Your task to perform on an android device: Go to privacy settings Image 0: 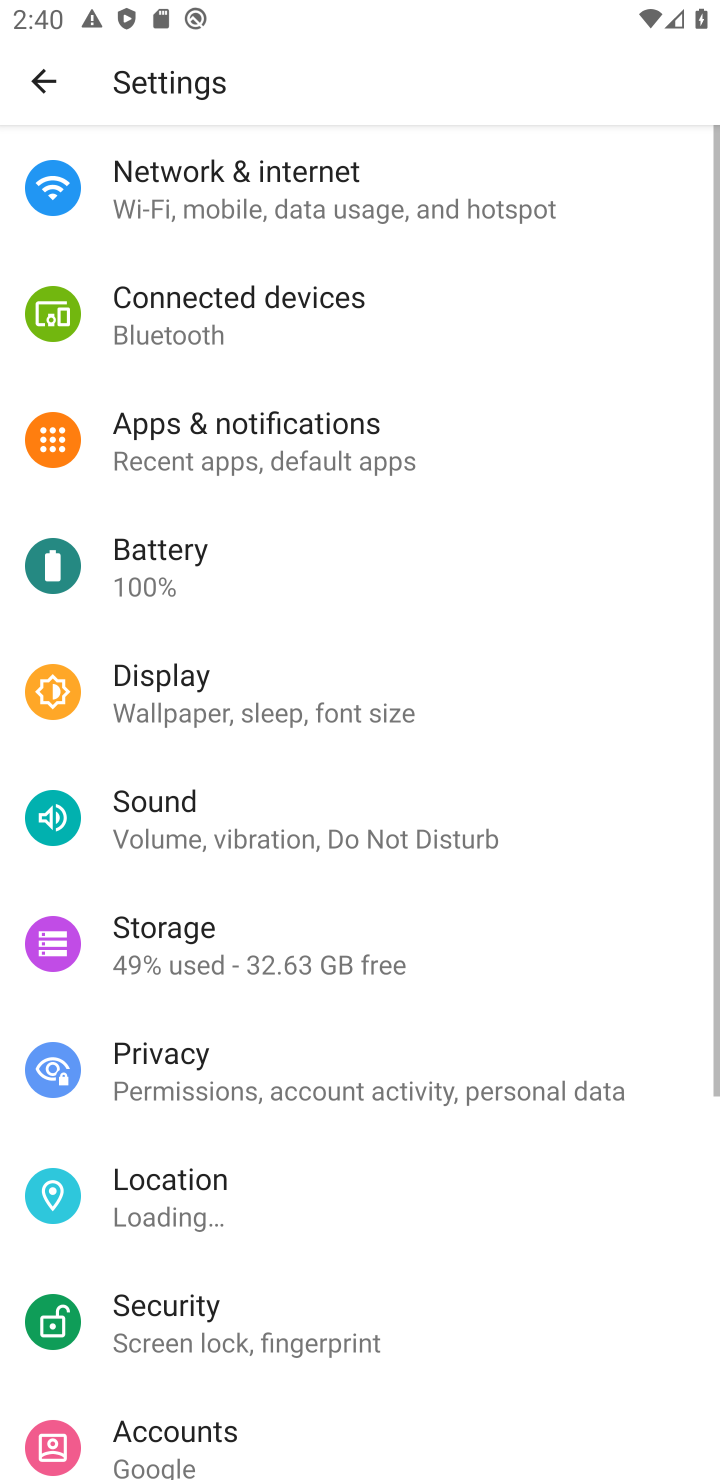
Step 0: click (355, 1066)
Your task to perform on an android device: Go to privacy settings Image 1: 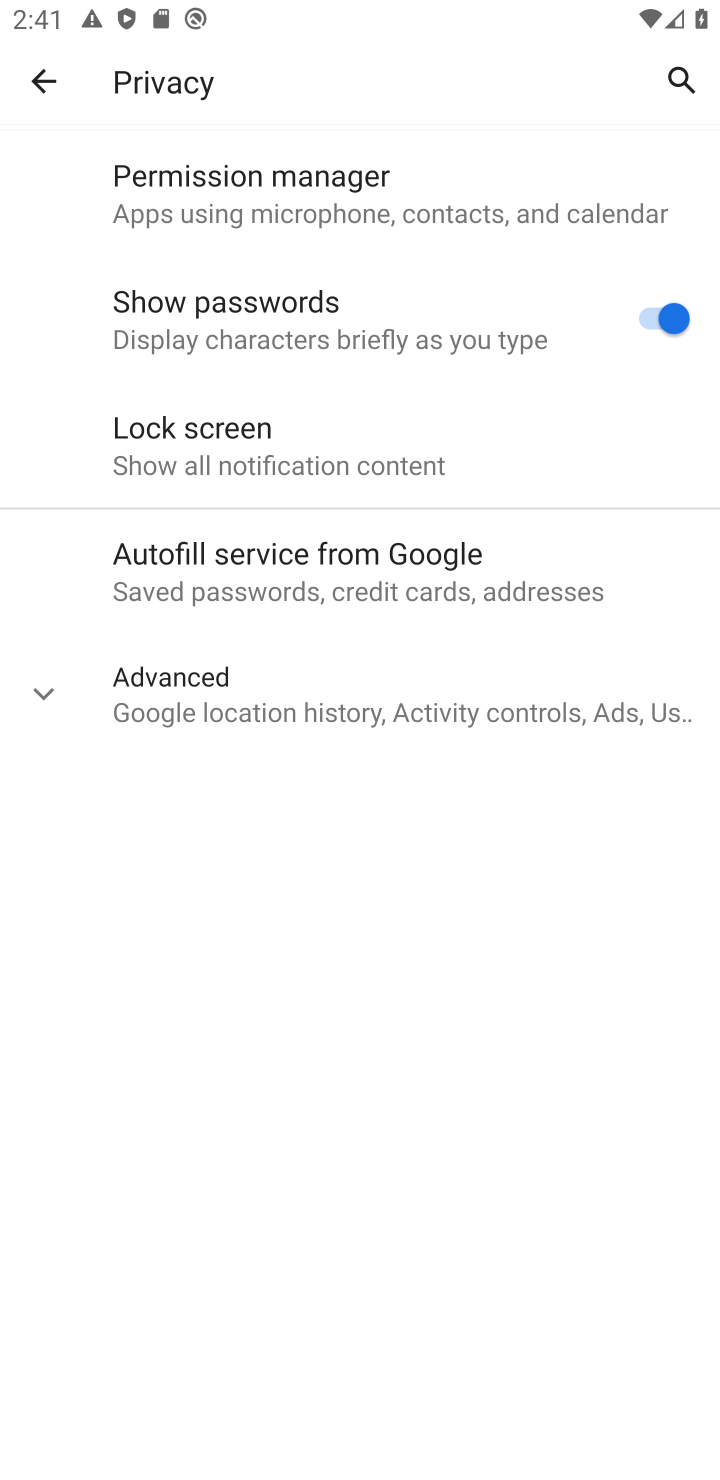
Step 1: task complete